Your task to perform on an android device: Go to Maps Image 0: 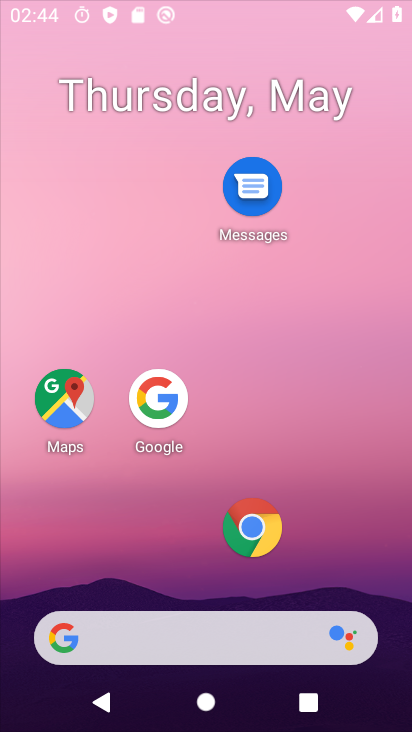
Step 0: drag from (264, 400) to (292, 157)
Your task to perform on an android device: Go to Maps Image 1: 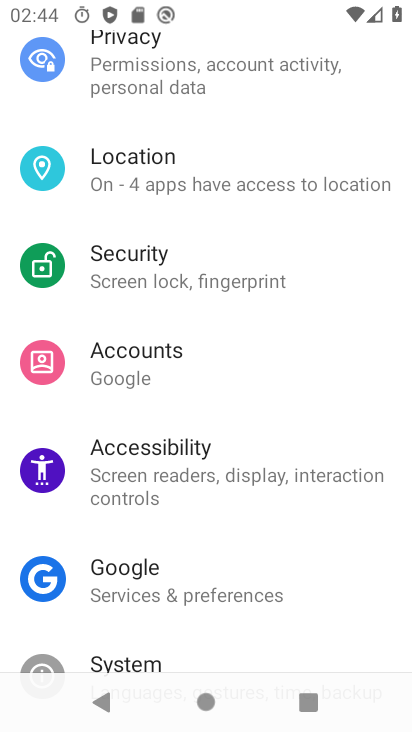
Step 1: drag from (234, 569) to (265, 240)
Your task to perform on an android device: Go to Maps Image 2: 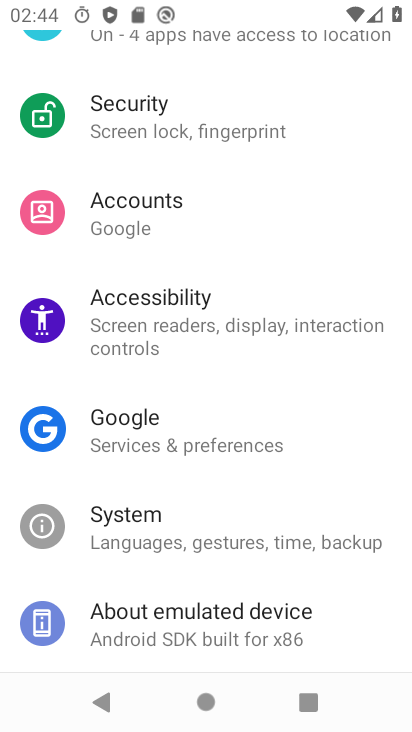
Step 2: press home button
Your task to perform on an android device: Go to Maps Image 3: 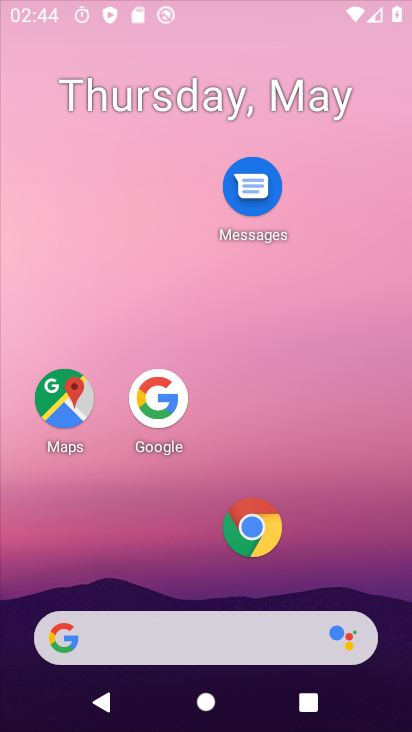
Step 3: drag from (211, 554) to (269, 218)
Your task to perform on an android device: Go to Maps Image 4: 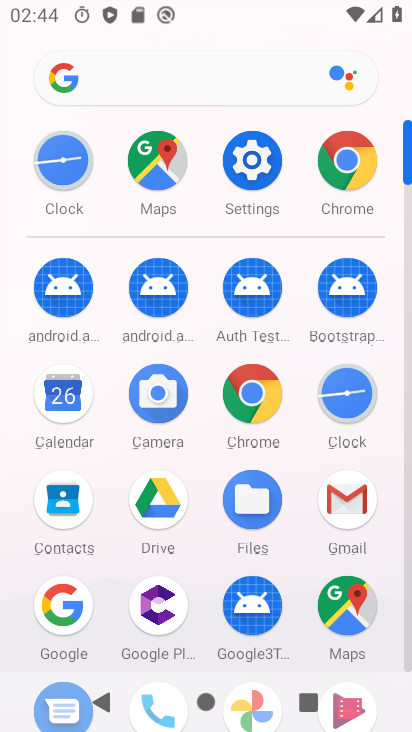
Step 4: click (347, 613)
Your task to perform on an android device: Go to Maps Image 5: 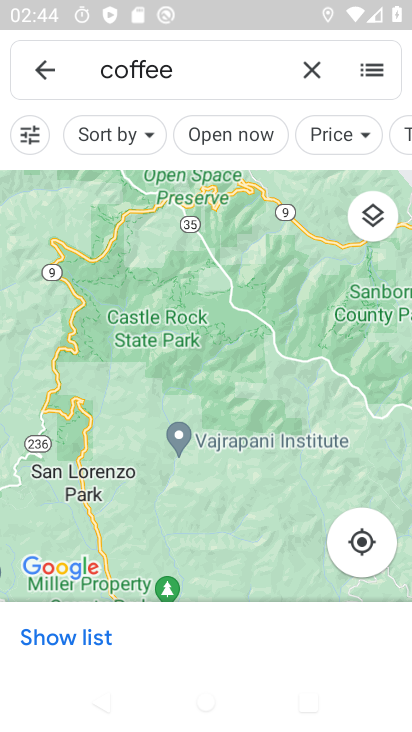
Step 5: task complete